Your task to perform on an android device: toggle notification dots Image 0: 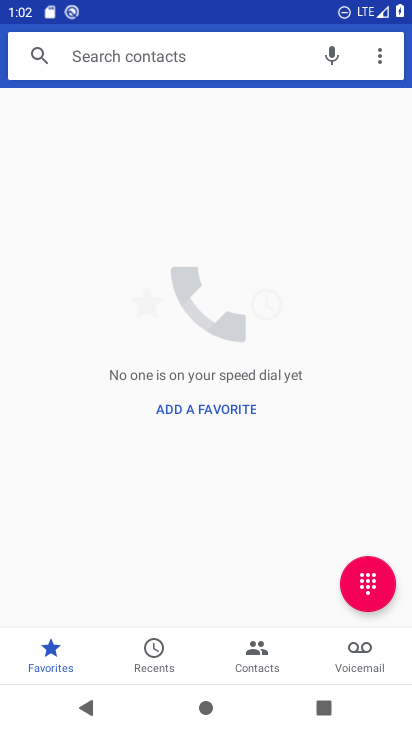
Step 0: press home button
Your task to perform on an android device: toggle notification dots Image 1: 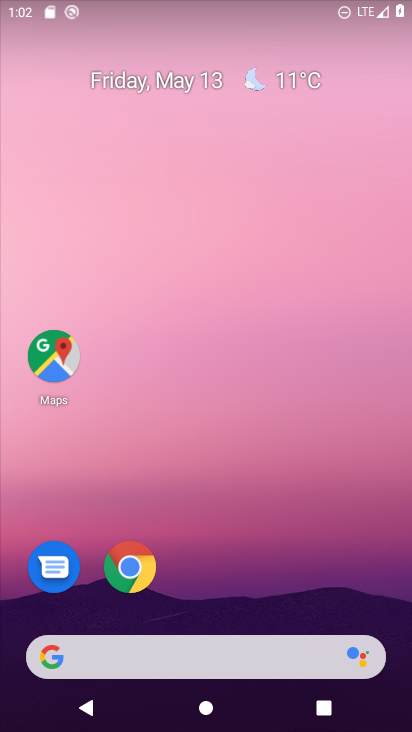
Step 1: drag from (220, 616) to (249, 51)
Your task to perform on an android device: toggle notification dots Image 2: 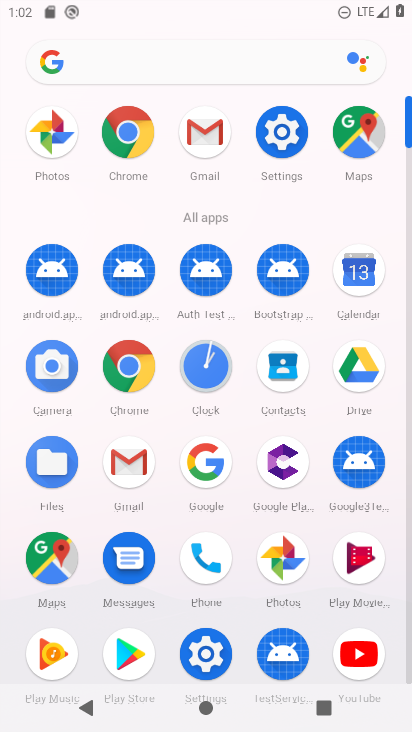
Step 2: click (288, 111)
Your task to perform on an android device: toggle notification dots Image 3: 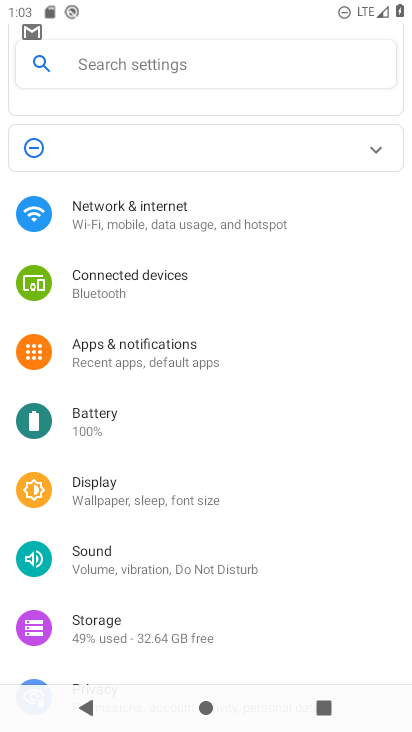
Step 3: click (177, 358)
Your task to perform on an android device: toggle notification dots Image 4: 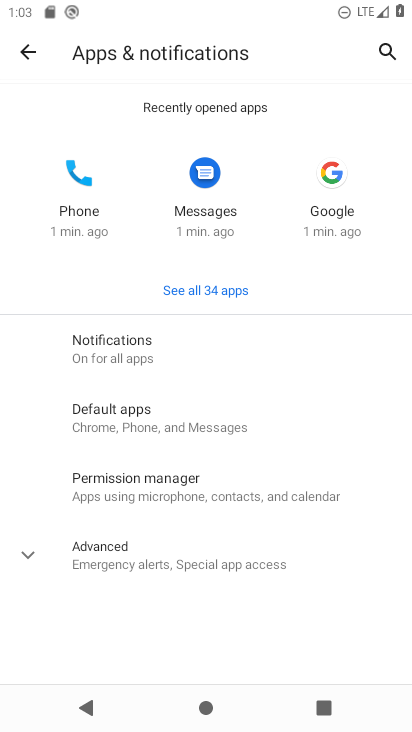
Step 4: click (167, 346)
Your task to perform on an android device: toggle notification dots Image 5: 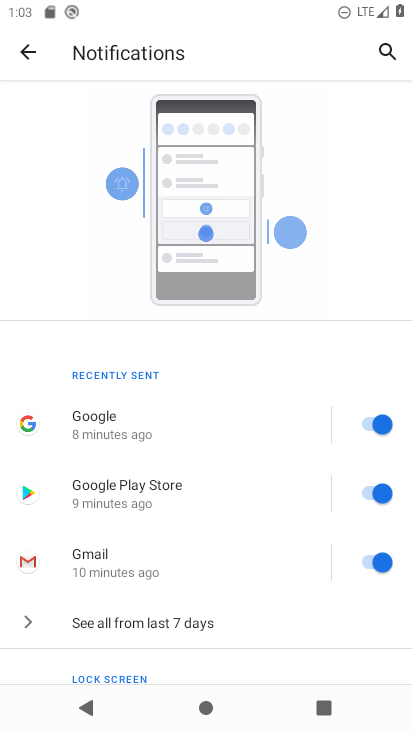
Step 5: drag from (217, 657) to (226, 125)
Your task to perform on an android device: toggle notification dots Image 6: 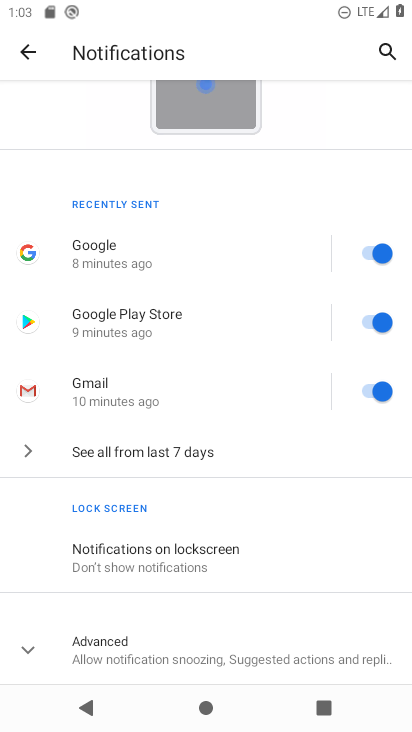
Step 6: click (26, 646)
Your task to perform on an android device: toggle notification dots Image 7: 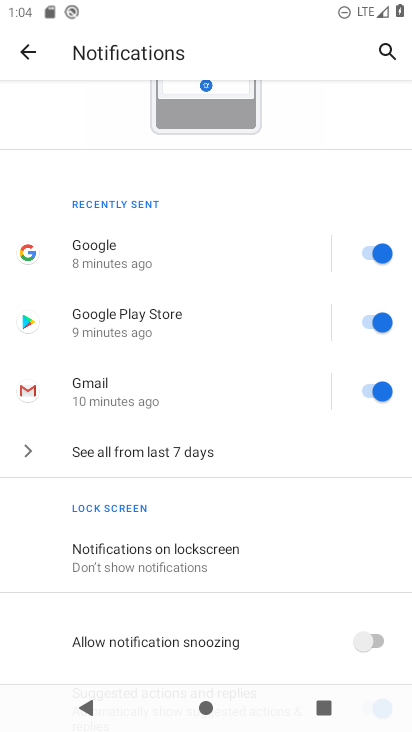
Step 7: drag from (253, 656) to (262, 171)
Your task to perform on an android device: toggle notification dots Image 8: 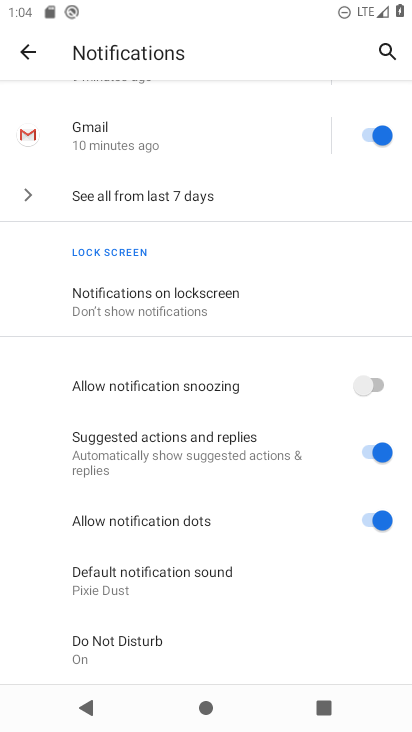
Step 8: click (368, 517)
Your task to perform on an android device: toggle notification dots Image 9: 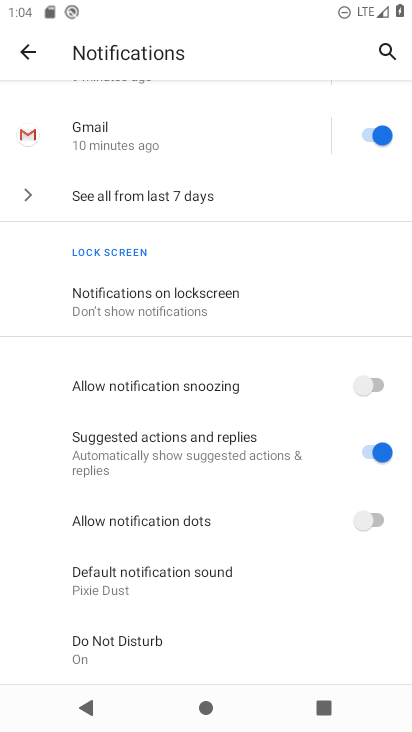
Step 9: task complete